Your task to perform on an android device: turn on bluetooth scan Image 0: 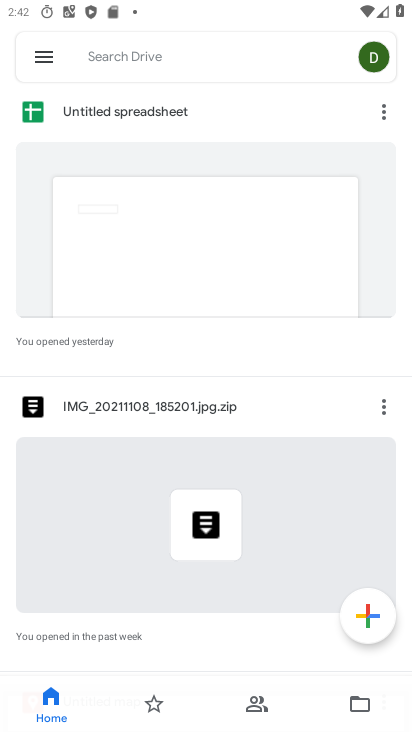
Step 0: press home button
Your task to perform on an android device: turn on bluetooth scan Image 1: 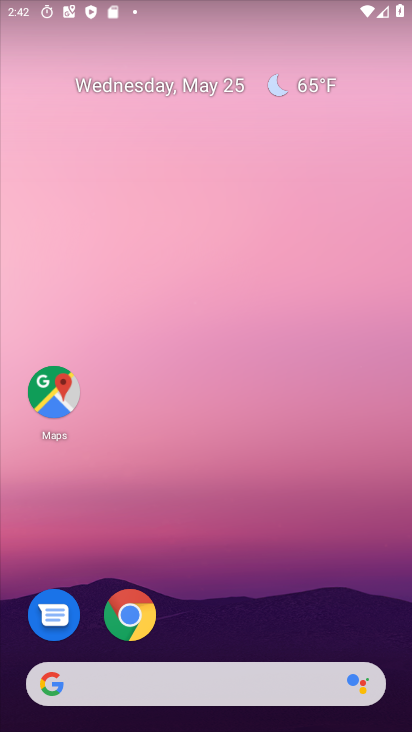
Step 1: drag from (399, 708) to (339, 136)
Your task to perform on an android device: turn on bluetooth scan Image 2: 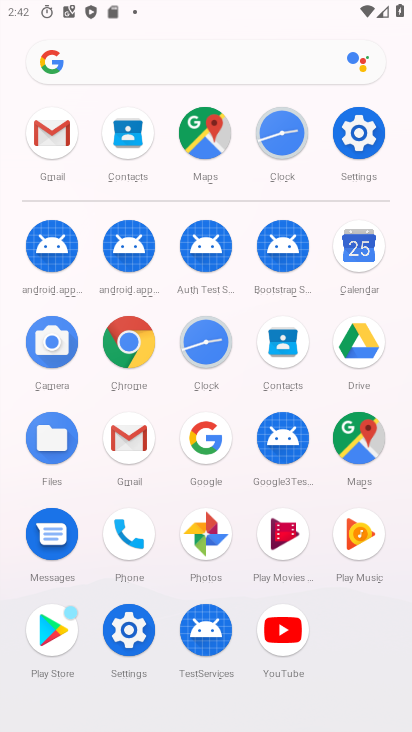
Step 2: click (369, 135)
Your task to perform on an android device: turn on bluetooth scan Image 3: 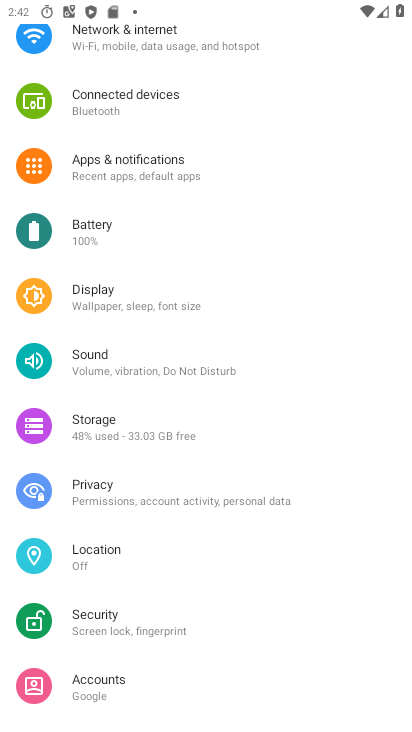
Step 3: click (92, 559)
Your task to perform on an android device: turn on bluetooth scan Image 4: 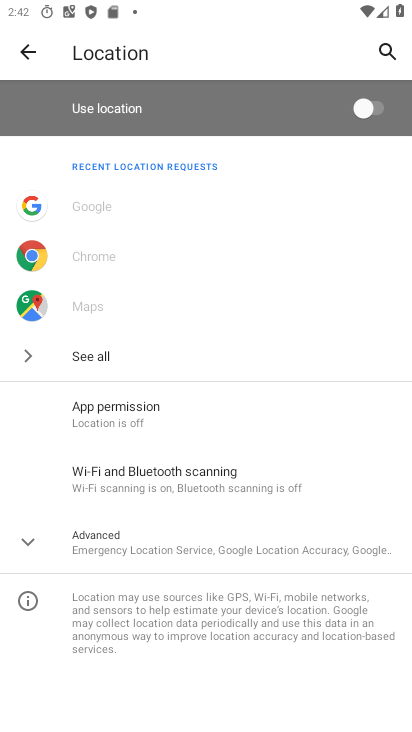
Step 4: click (23, 543)
Your task to perform on an android device: turn on bluetooth scan Image 5: 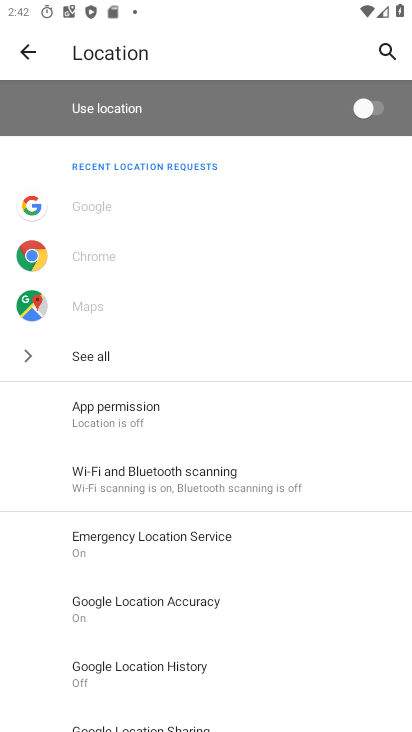
Step 5: task complete